Your task to perform on an android device: Open maps Image 0: 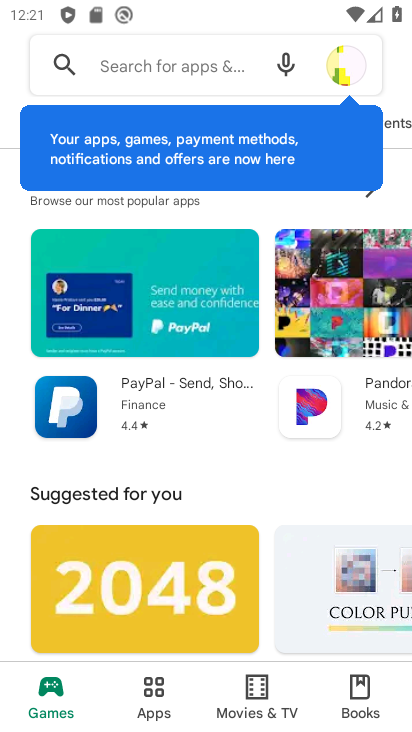
Step 0: press home button
Your task to perform on an android device: Open maps Image 1: 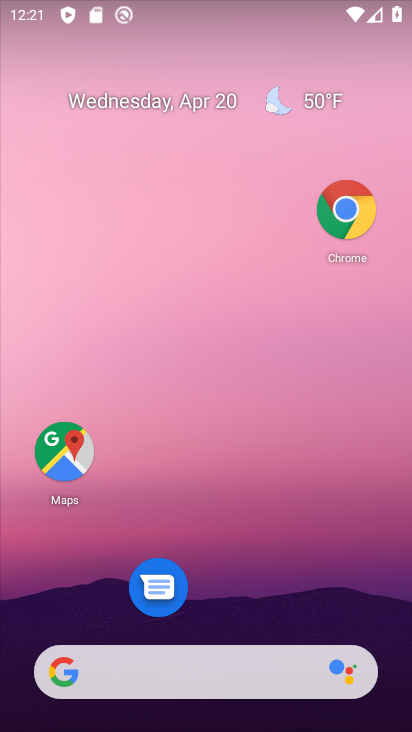
Step 1: click (57, 465)
Your task to perform on an android device: Open maps Image 2: 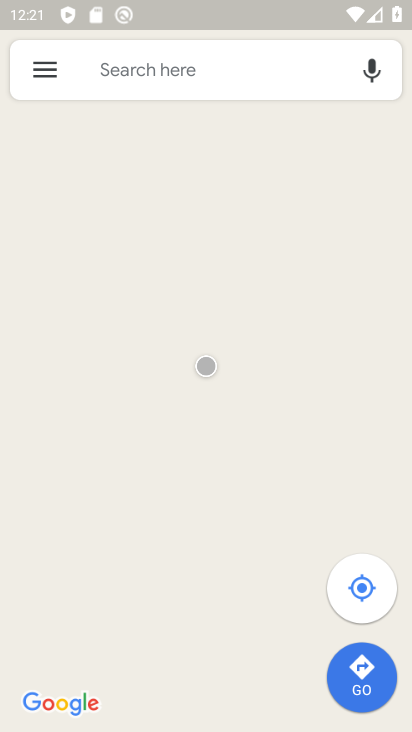
Step 2: task complete